Your task to perform on an android device: turn on showing notifications on the lock screen Image 0: 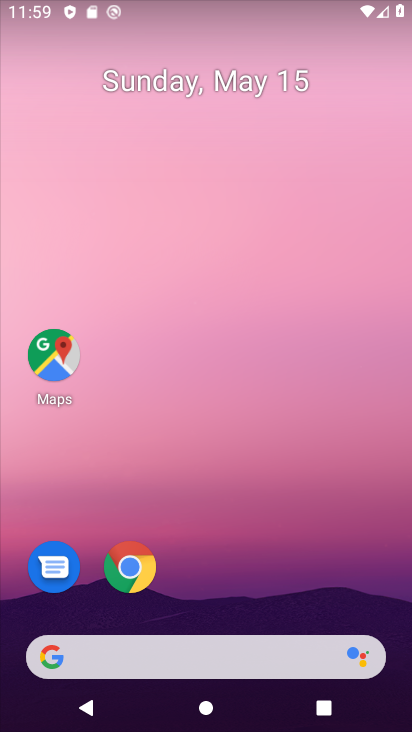
Step 0: drag from (318, 599) to (313, 144)
Your task to perform on an android device: turn on showing notifications on the lock screen Image 1: 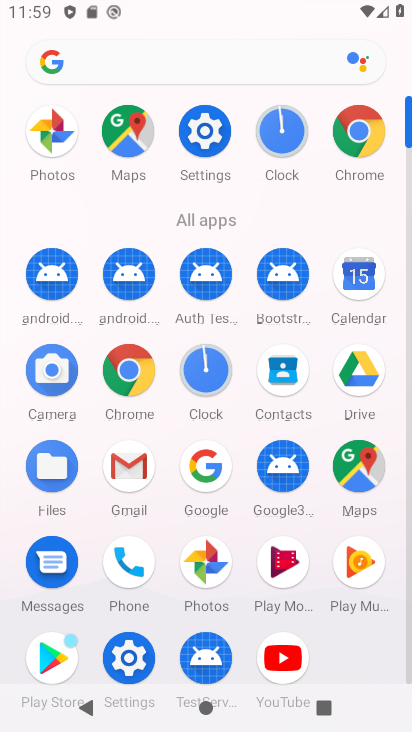
Step 1: click (211, 130)
Your task to perform on an android device: turn on showing notifications on the lock screen Image 2: 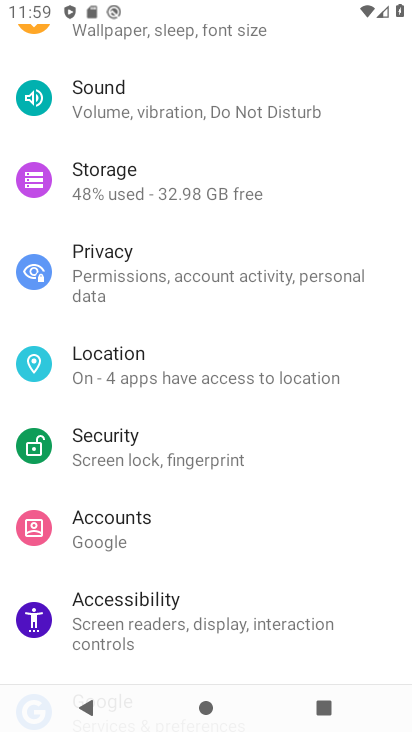
Step 2: drag from (258, 581) to (273, 726)
Your task to perform on an android device: turn on showing notifications on the lock screen Image 3: 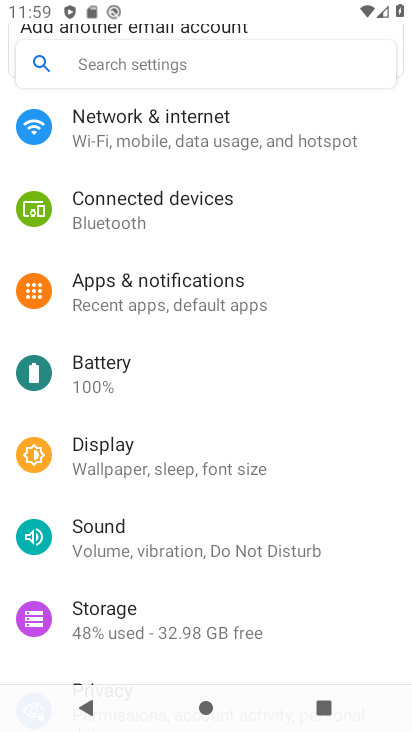
Step 3: click (215, 311)
Your task to perform on an android device: turn on showing notifications on the lock screen Image 4: 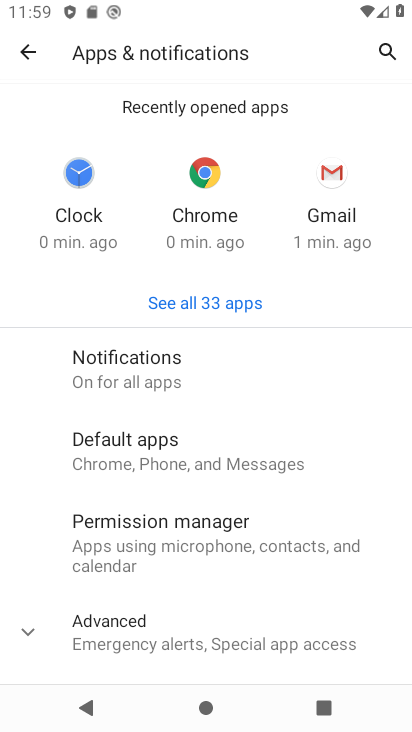
Step 4: click (169, 383)
Your task to perform on an android device: turn on showing notifications on the lock screen Image 5: 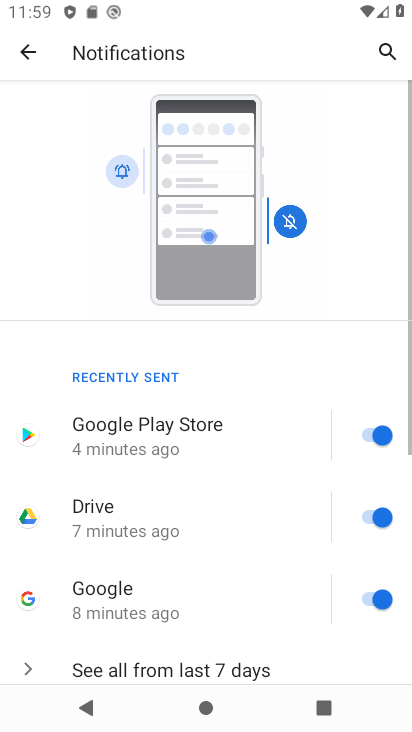
Step 5: drag from (160, 605) to (224, 81)
Your task to perform on an android device: turn on showing notifications on the lock screen Image 6: 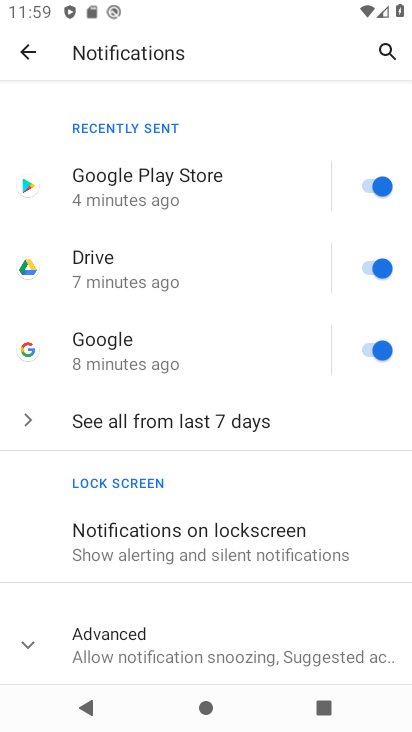
Step 6: click (191, 527)
Your task to perform on an android device: turn on showing notifications on the lock screen Image 7: 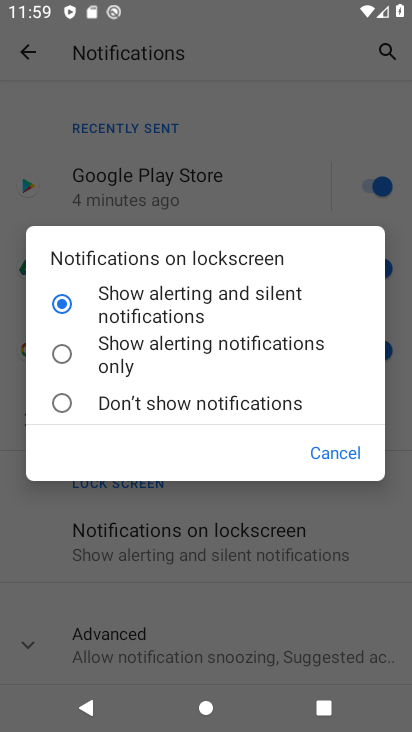
Step 7: click (188, 358)
Your task to perform on an android device: turn on showing notifications on the lock screen Image 8: 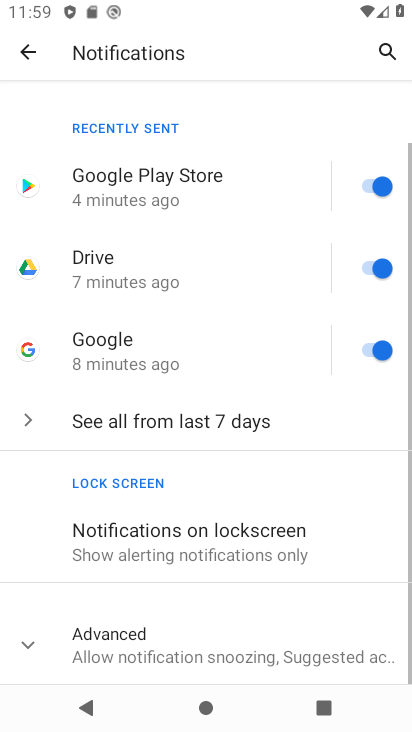
Step 8: task complete